Your task to perform on an android device: Go to wifi settings Image 0: 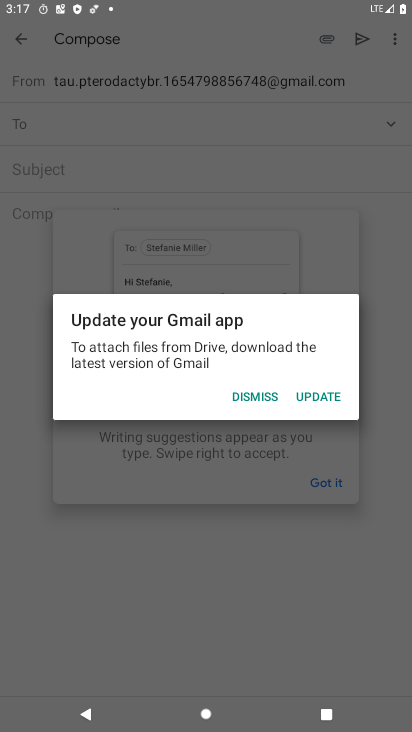
Step 0: press home button
Your task to perform on an android device: Go to wifi settings Image 1: 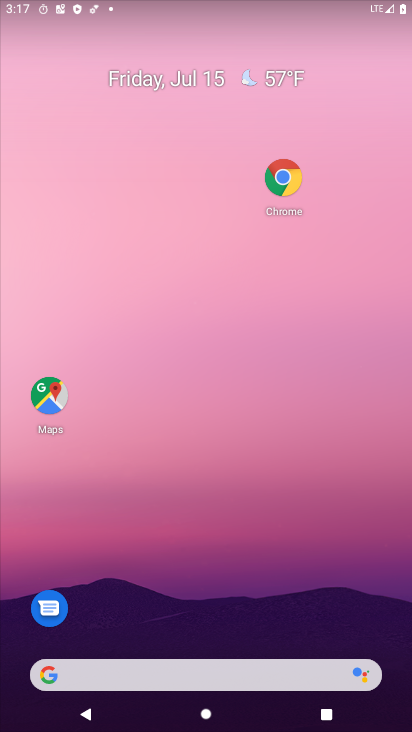
Step 1: drag from (380, 3) to (321, 672)
Your task to perform on an android device: Go to wifi settings Image 2: 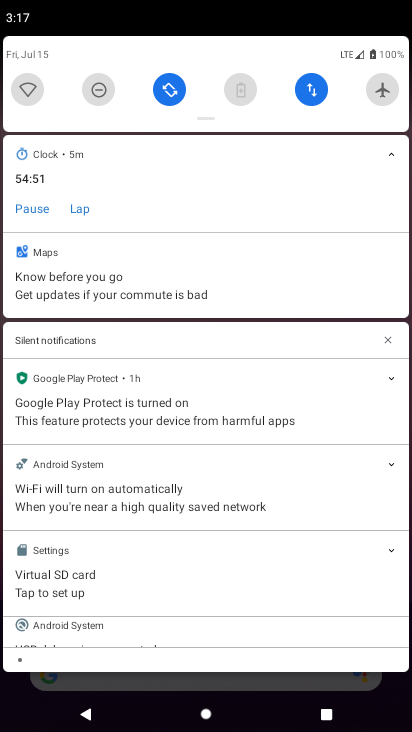
Step 2: drag from (200, 105) to (212, 464)
Your task to perform on an android device: Go to wifi settings Image 3: 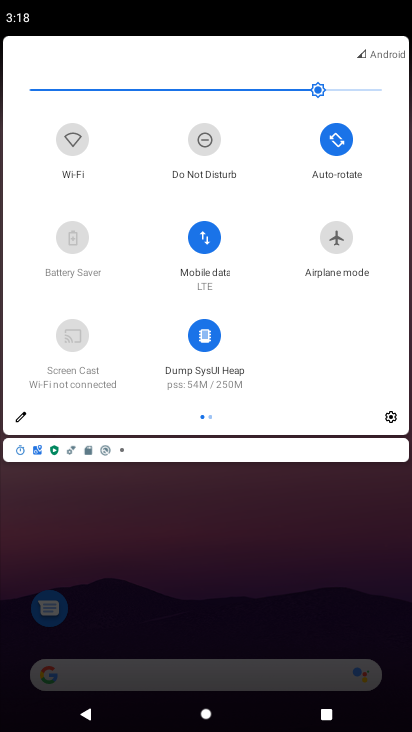
Step 3: click (77, 141)
Your task to perform on an android device: Go to wifi settings Image 4: 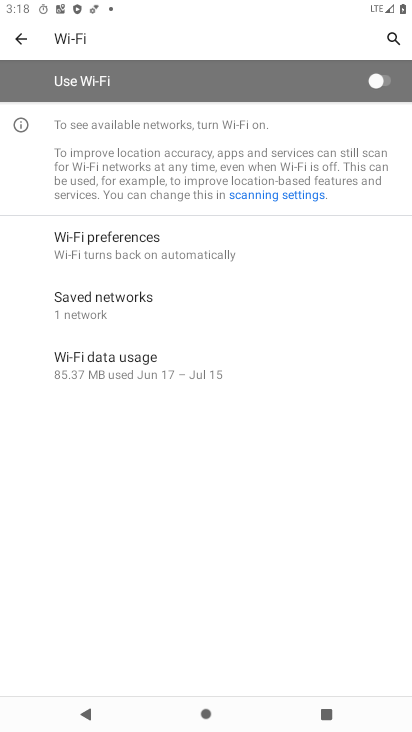
Step 4: task complete